Your task to perform on an android device: Open display settings Image 0: 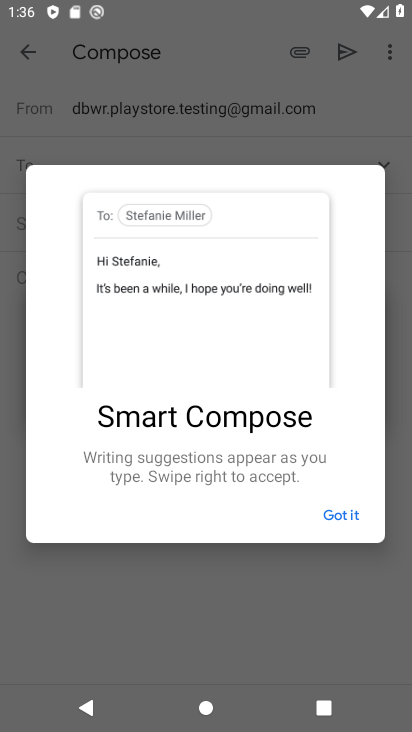
Step 0: press home button
Your task to perform on an android device: Open display settings Image 1: 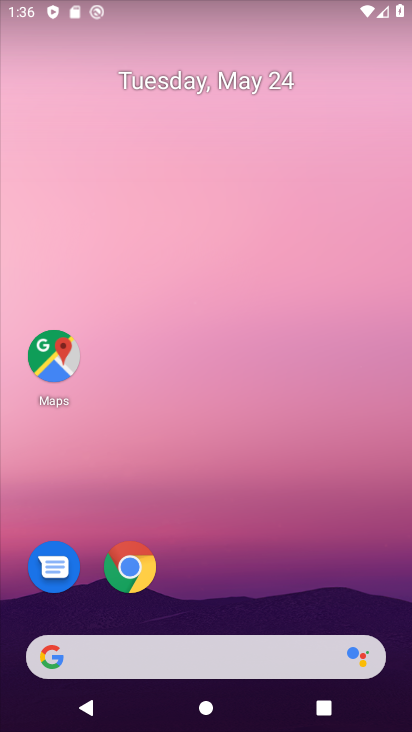
Step 1: drag from (237, 550) to (273, 311)
Your task to perform on an android device: Open display settings Image 2: 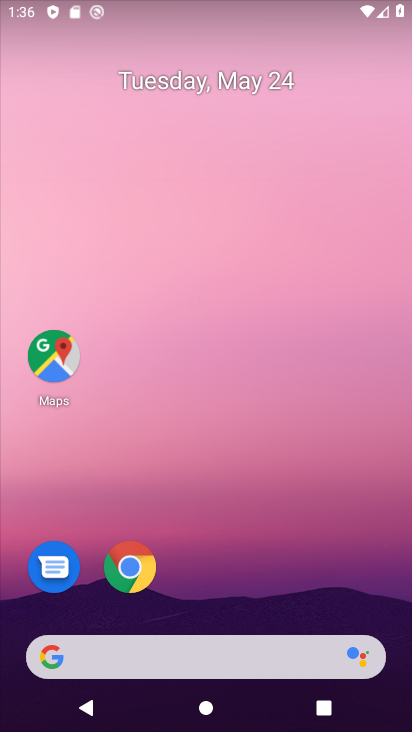
Step 2: drag from (187, 566) to (331, 1)
Your task to perform on an android device: Open display settings Image 3: 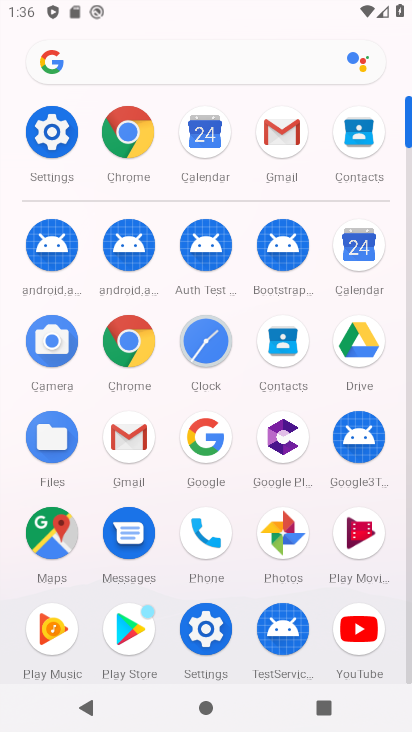
Step 3: click (43, 131)
Your task to perform on an android device: Open display settings Image 4: 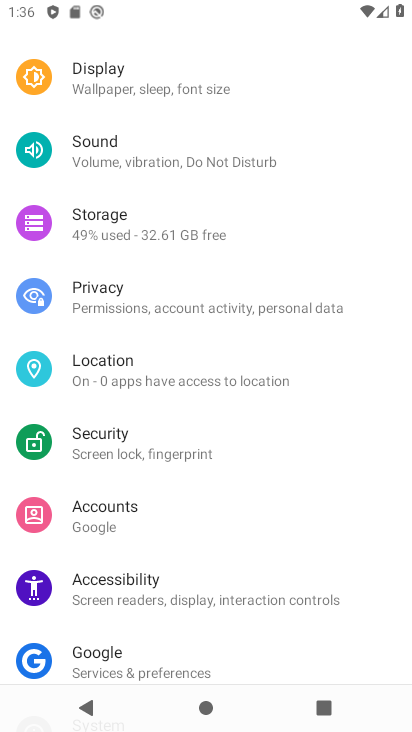
Step 4: click (176, 86)
Your task to perform on an android device: Open display settings Image 5: 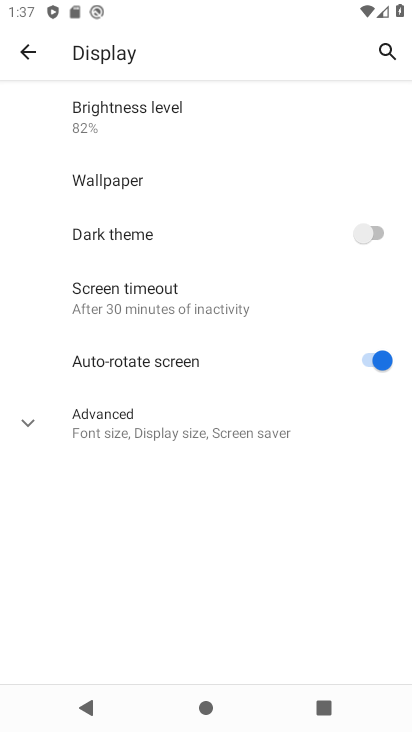
Step 5: task complete